Your task to perform on an android device: Open the Play Movies app and select the watchlist tab. Image 0: 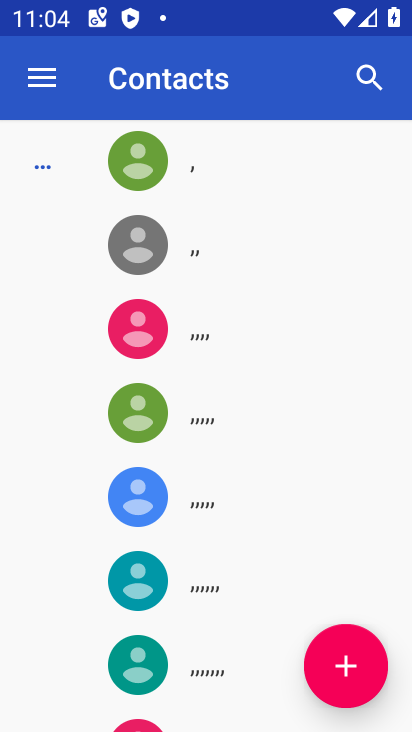
Step 0: press home button
Your task to perform on an android device: Open the Play Movies app and select the watchlist tab. Image 1: 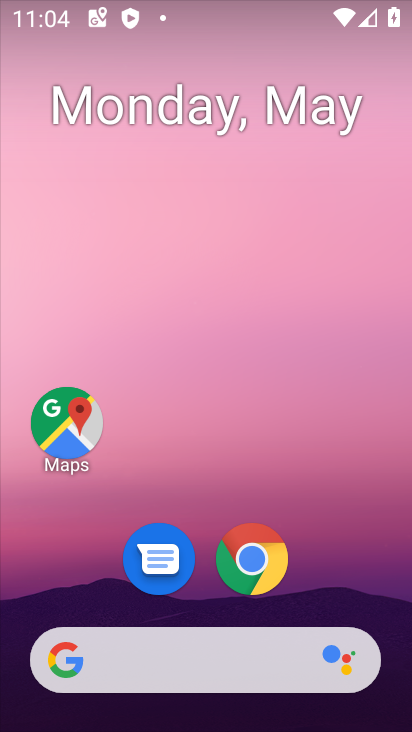
Step 1: drag from (144, 448) to (211, 450)
Your task to perform on an android device: Open the Play Movies app and select the watchlist tab. Image 2: 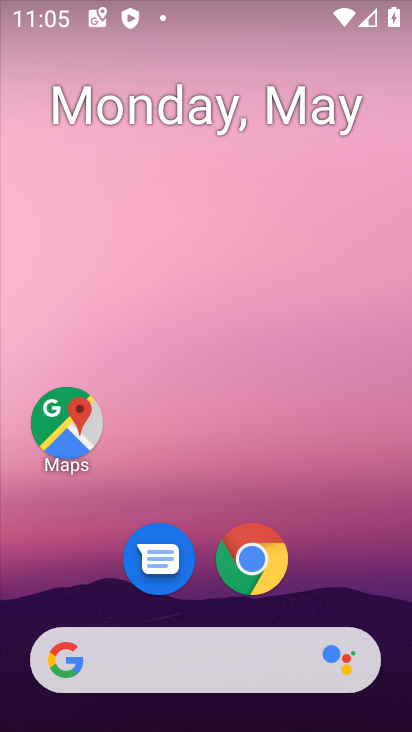
Step 2: drag from (341, 571) to (313, 166)
Your task to perform on an android device: Open the Play Movies app and select the watchlist tab. Image 3: 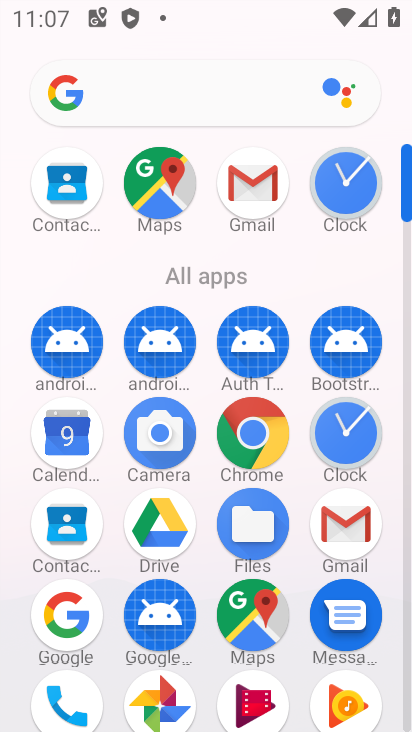
Step 3: click (236, 682)
Your task to perform on an android device: Open the Play Movies app and select the watchlist tab. Image 4: 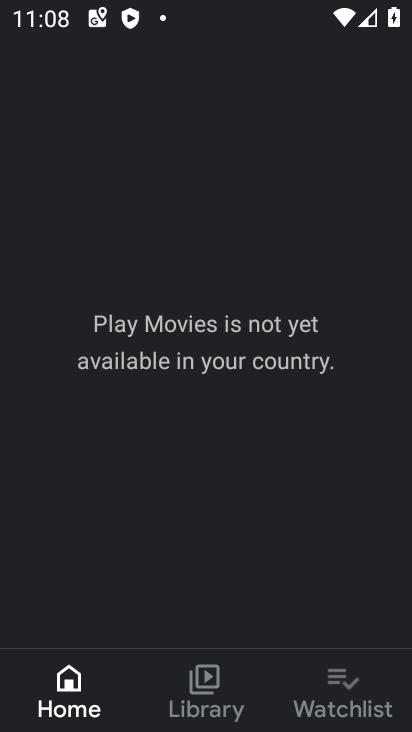
Step 4: click (326, 698)
Your task to perform on an android device: Open the Play Movies app and select the watchlist tab. Image 5: 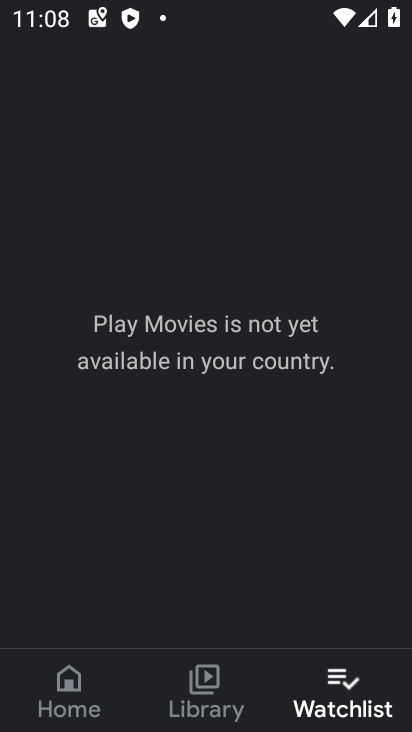
Step 5: task complete